Your task to perform on an android device: open app "VLC for Android" (install if not already installed) Image 0: 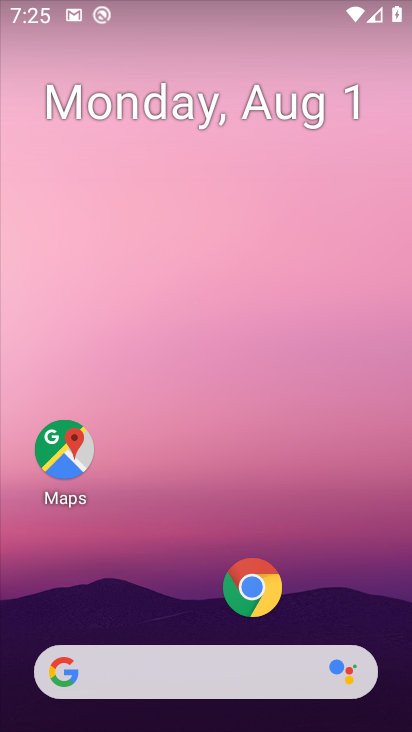
Step 0: drag from (137, 400) to (154, 21)
Your task to perform on an android device: open app "VLC for Android" (install if not already installed) Image 1: 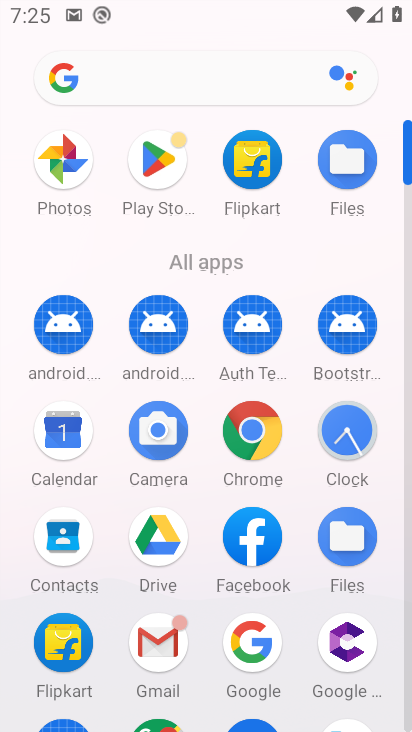
Step 1: drag from (158, 166) to (132, 258)
Your task to perform on an android device: open app "VLC for Android" (install if not already installed) Image 2: 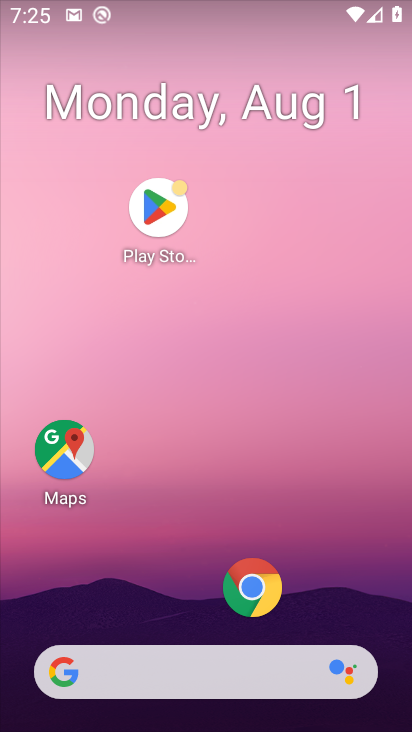
Step 2: click (174, 254)
Your task to perform on an android device: open app "VLC for Android" (install if not already installed) Image 3: 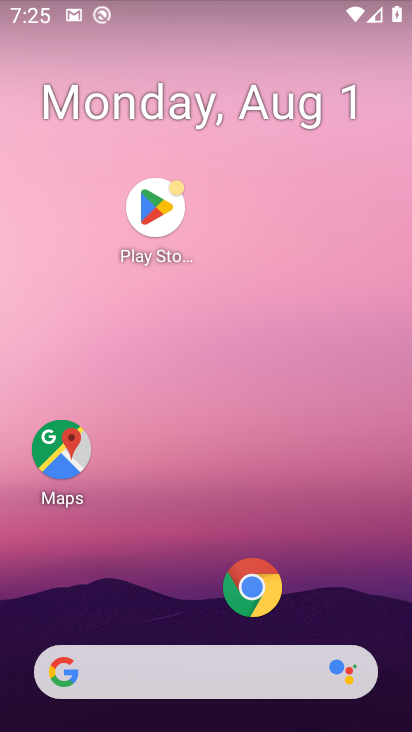
Step 3: click (174, 254)
Your task to perform on an android device: open app "VLC for Android" (install if not already installed) Image 4: 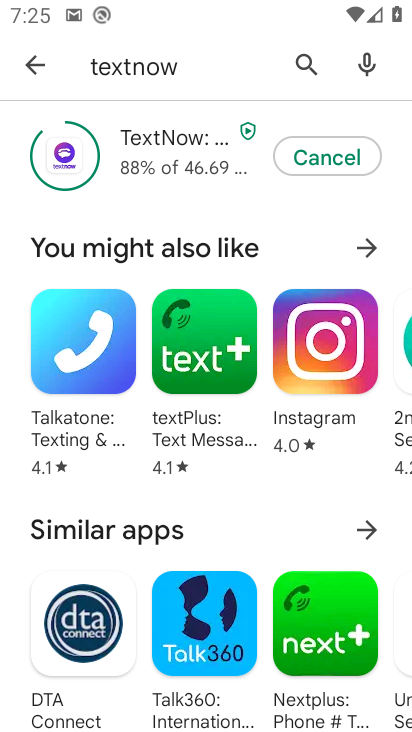
Step 4: click (305, 86)
Your task to perform on an android device: open app "VLC for Android" (install if not already installed) Image 5: 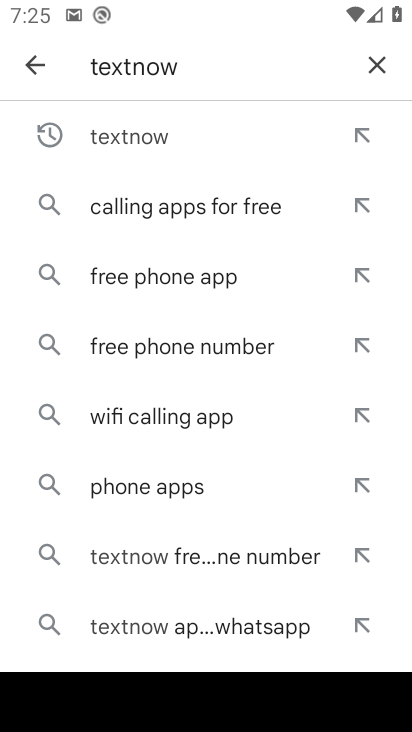
Step 5: click (387, 58)
Your task to perform on an android device: open app "VLC for Android" (install if not already installed) Image 6: 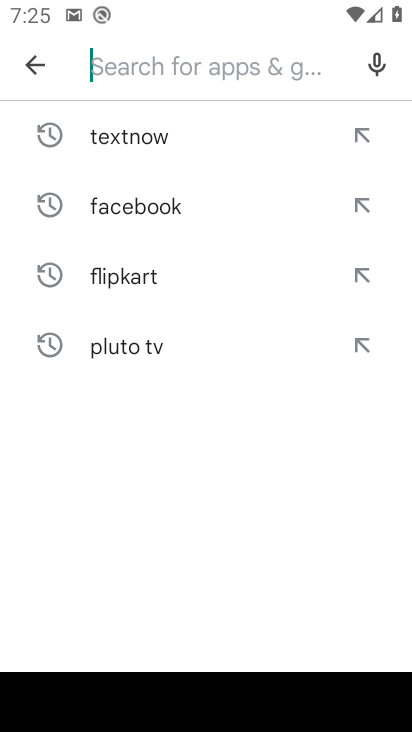
Step 6: type "vlc"
Your task to perform on an android device: open app "VLC for Android" (install if not already installed) Image 7: 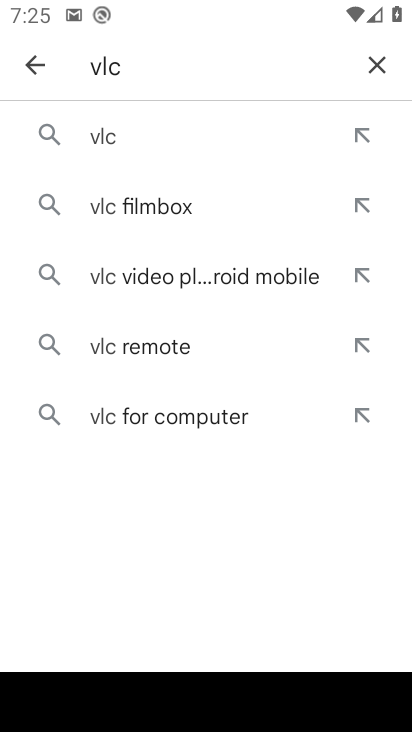
Step 7: click (196, 120)
Your task to perform on an android device: open app "VLC for Android" (install if not already installed) Image 8: 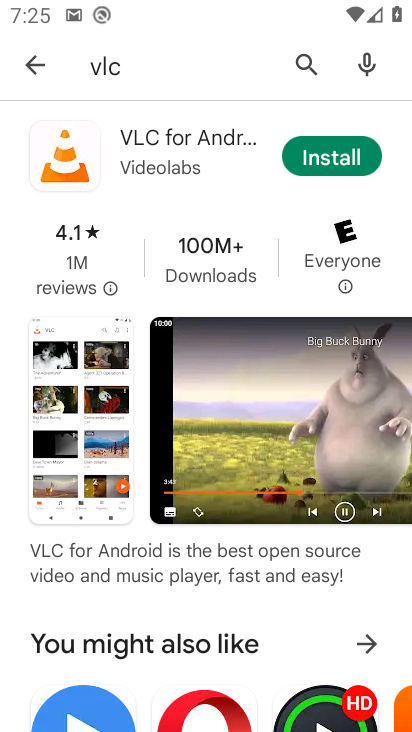
Step 8: click (348, 166)
Your task to perform on an android device: open app "VLC for Android" (install if not already installed) Image 9: 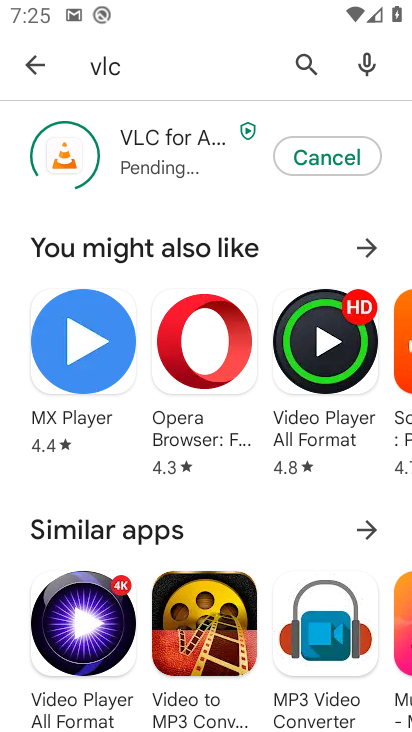
Step 9: task complete